Your task to perform on an android device: Open the calendar and show me this week's events? Image 0: 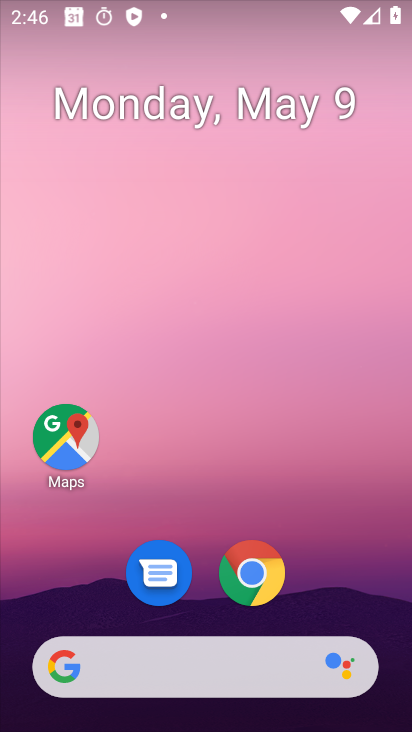
Step 0: drag from (286, 644) to (197, 276)
Your task to perform on an android device: Open the calendar and show me this week's events? Image 1: 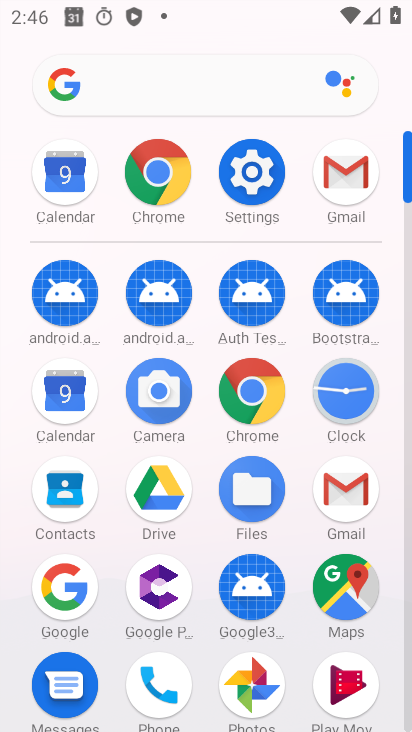
Step 1: click (65, 484)
Your task to perform on an android device: Open the calendar and show me this week's events? Image 2: 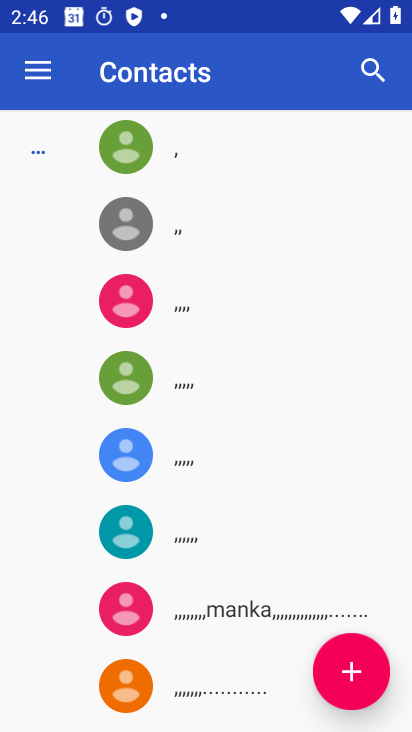
Step 2: press back button
Your task to perform on an android device: Open the calendar and show me this week's events? Image 3: 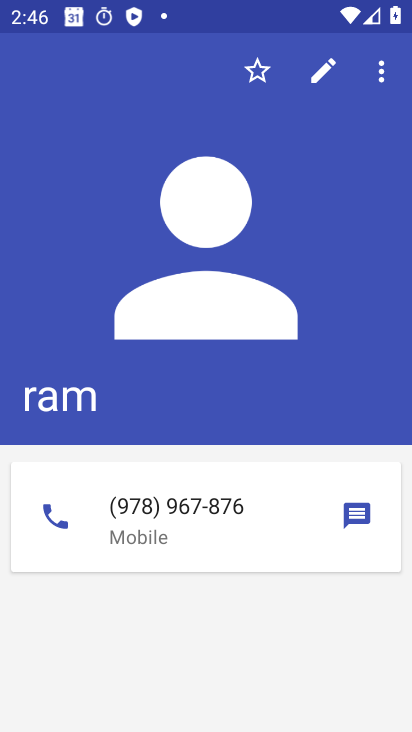
Step 3: press home button
Your task to perform on an android device: Open the calendar and show me this week's events? Image 4: 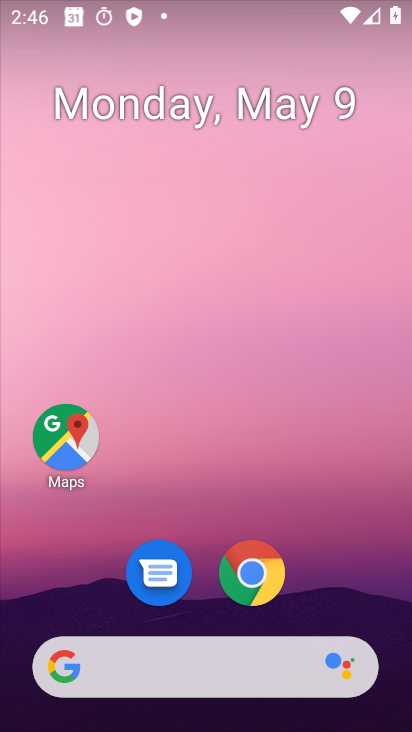
Step 4: drag from (240, 628) to (383, 1)
Your task to perform on an android device: Open the calendar and show me this week's events? Image 5: 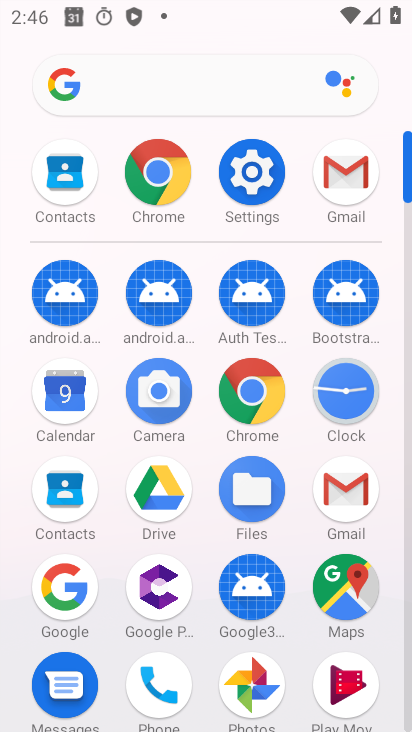
Step 5: click (63, 389)
Your task to perform on an android device: Open the calendar and show me this week's events? Image 6: 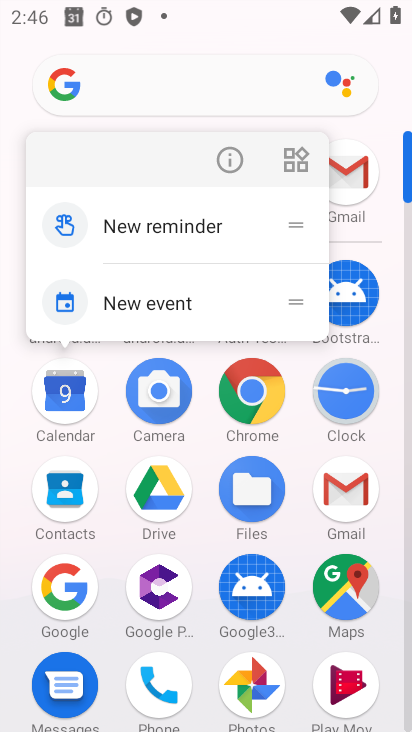
Step 6: click (63, 390)
Your task to perform on an android device: Open the calendar and show me this week's events? Image 7: 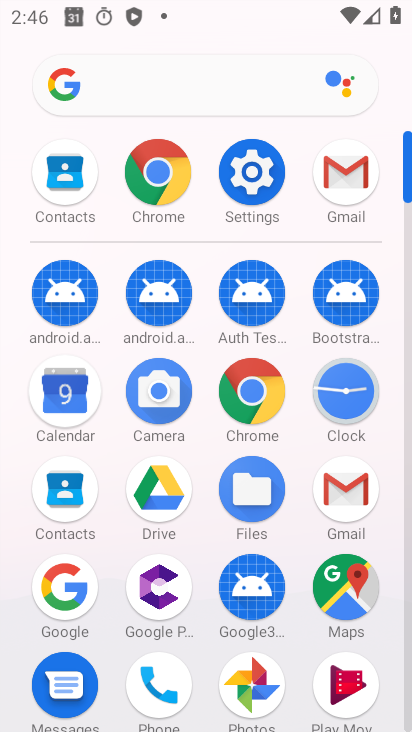
Step 7: click (60, 389)
Your task to perform on an android device: Open the calendar and show me this week's events? Image 8: 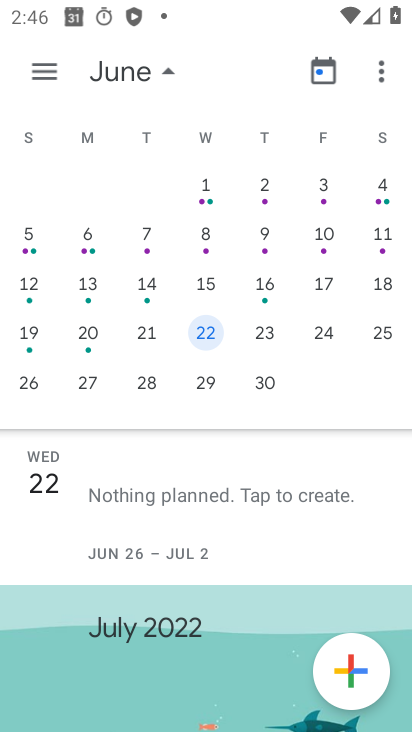
Step 8: drag from (50, 323) to (314, 322)
Your task to perform on an android device: Open the calendar and show me this week's events? Image 9: 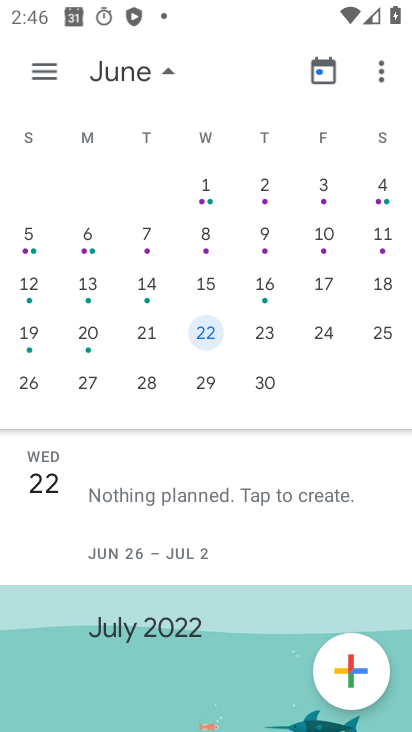
Step 9: drag from (143, 325) to (308, 339)
Your task to perform on an android device: Open the calendar and show me this week's events? Image 10: 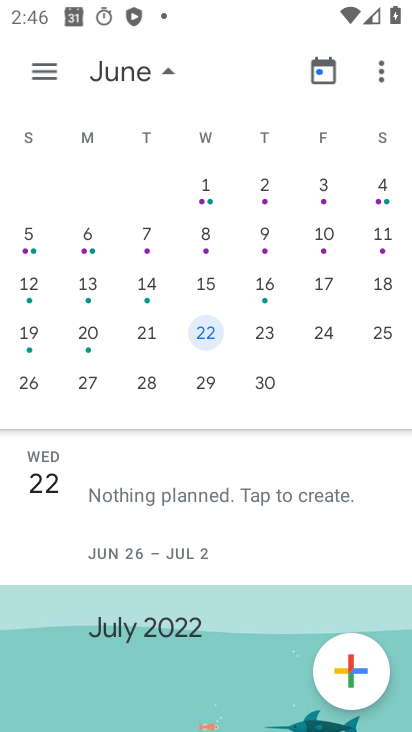
Step 10: drag from (109, 325) to (377, 328)
Your task to perform on an android device: Open the calendar and show me this week's events? Image 11: 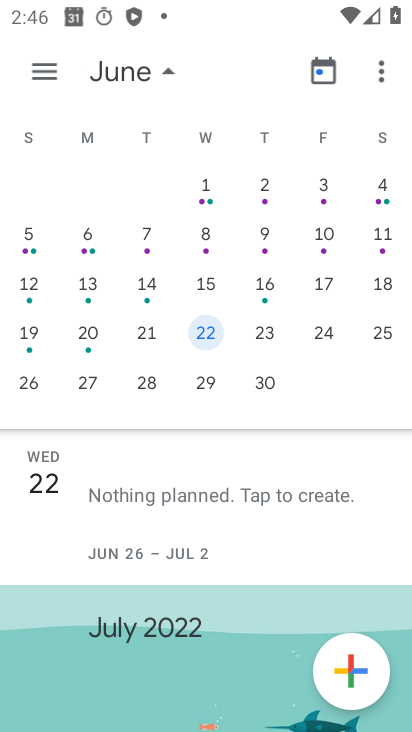
Step 11: click (389, 343)
Your task to perform on an android device: Open the calendar and show me this week's events? Image 12: 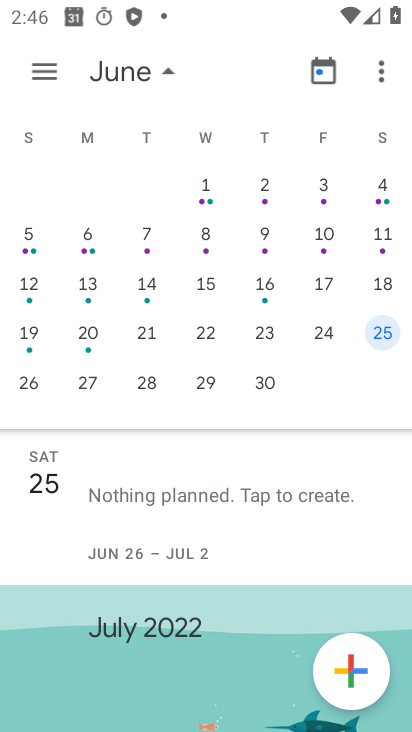
Step 12: drag from (142, 317) to (401, 293)
Your task to perform on an android device: Open the calendar and show me this week's events? Image 13: 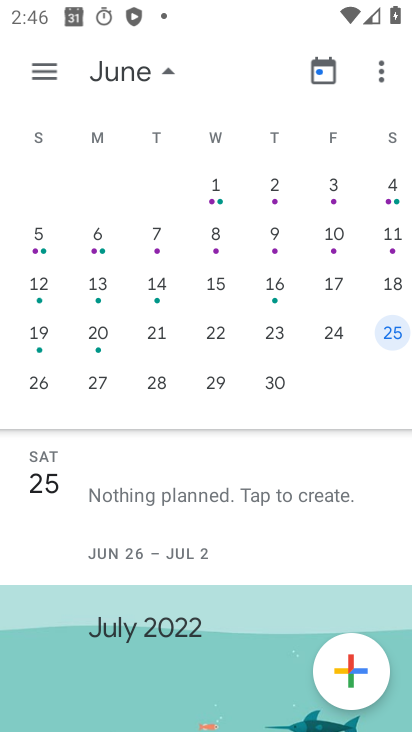
Step 13: drag from (141, 282) to (395, 309)
Your task to perform on an android device: Open the calendar and show me this week's events? Image 14: 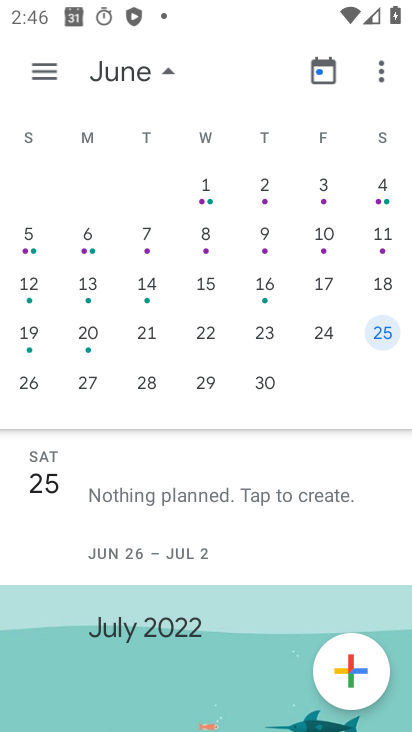
Step 14: drag from (71, 366) to (404, 213)
Your task to perform on an android device: Open the calendar and show me this week's events? Image 15: 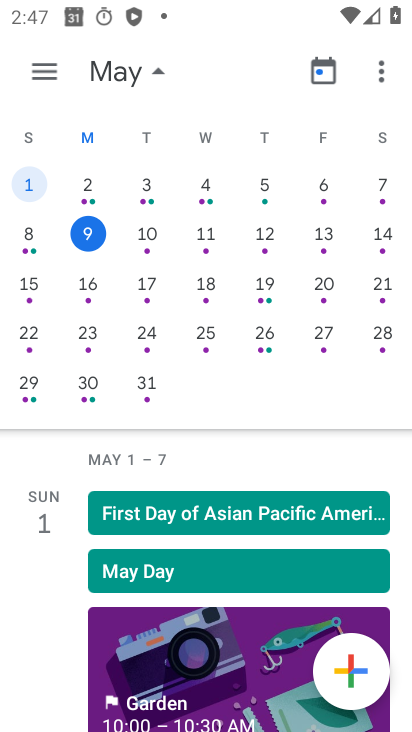
Step 15: drag from (22, 313) to (132, 292)
Your task to perform on an android device: Open the calendar and show me this week's events? Image 16: 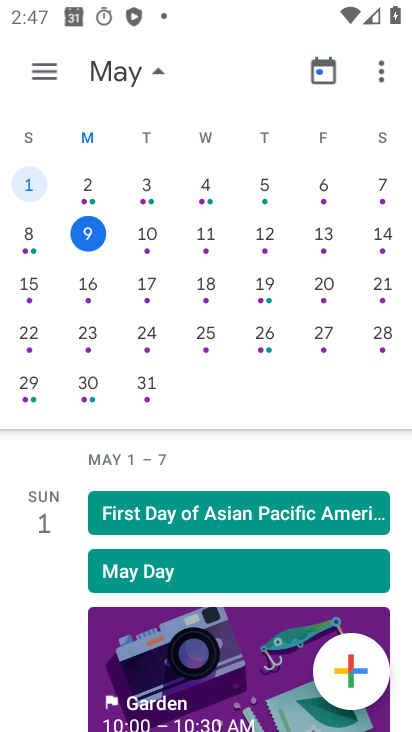
Step 16: drag from (139, 545) to (314, 19)
Your task to perform on an android device: Open the calendar and show me this week's events? Image 17: 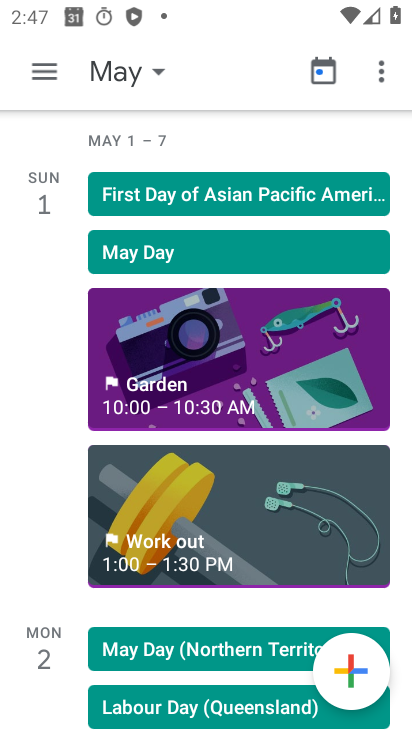
Step 17: drag from (166, 540) to (133, 126)
Your task to perform on an android device: Open the calendar and show me this week's events? Image 18: 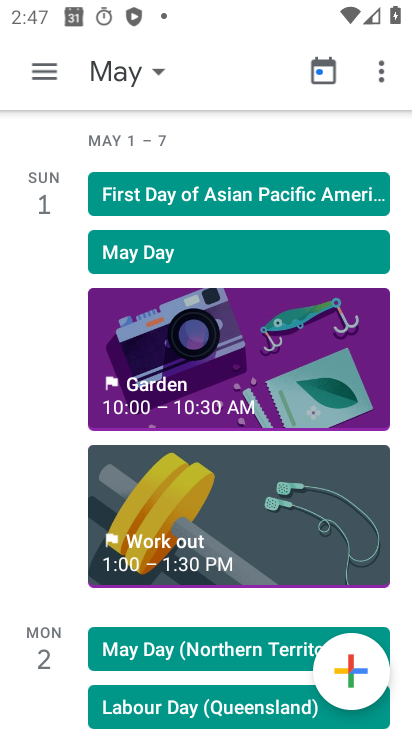
Step 18: drag from (114, 576) to (131, 115)
Your task to perform on an android device: Open the calendar and show me this week's events? Image 19: 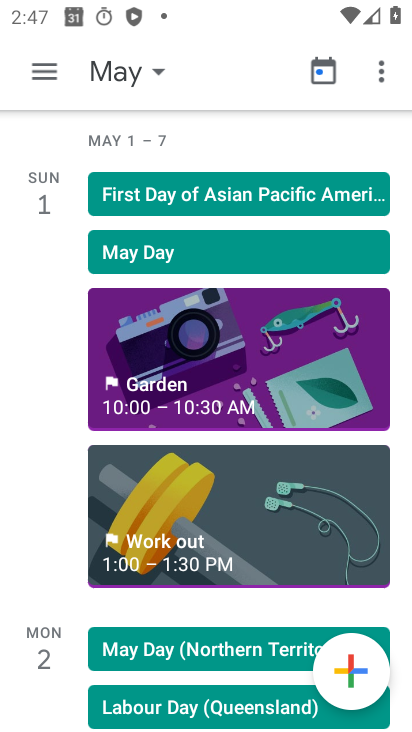
Step 19: drag from (155, 523) to (157, 167)
Your task to perform on an android device: Open the calendar and show me this week's events? Image 20: 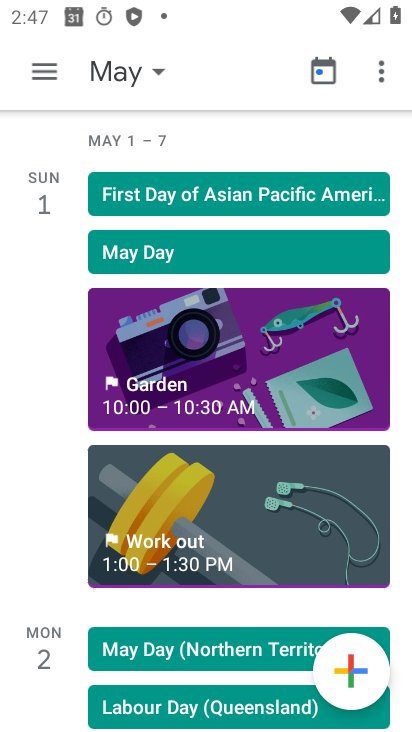
Step 20: drag from (102, 675) to (101, 282)
Your task to perform on an android device: Open the calendar and show me this week's events? Image 21: 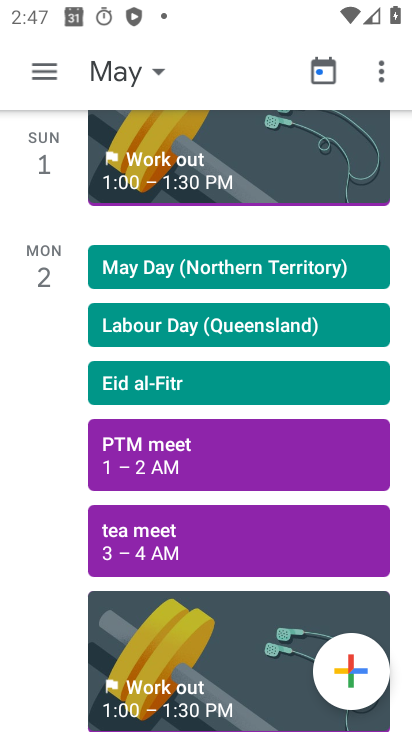
Step 21: drag from (68, 578) to (73, 279)
Your task to perform on an android device: Open the calendar and show me this week's events? Image 22: 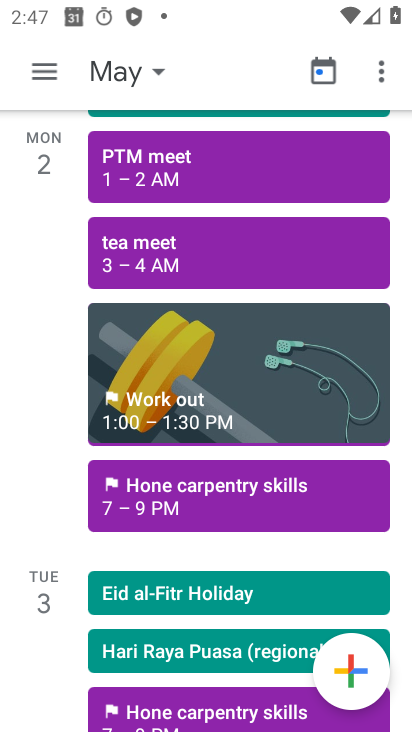
Step 22: drag from (174, 630) to (151, 244)
Your task to perform on an android device: Open the calendar and show me this week's events? Image 23: 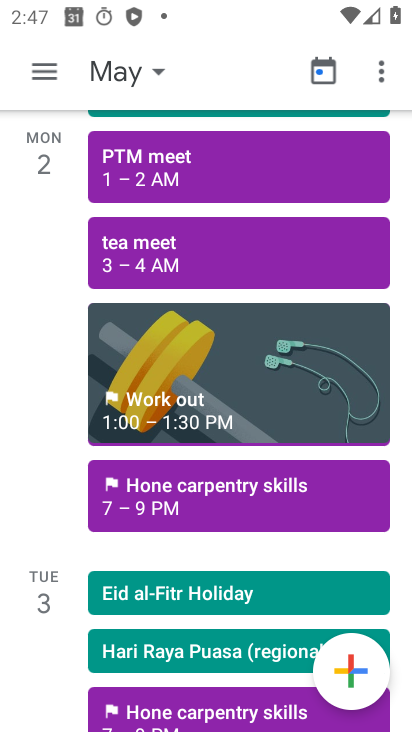
Step 23: drag from (197, 604) to (174, 245)
Your task to perform on an android device: Open the calendar and show me this week's events? Image 24: 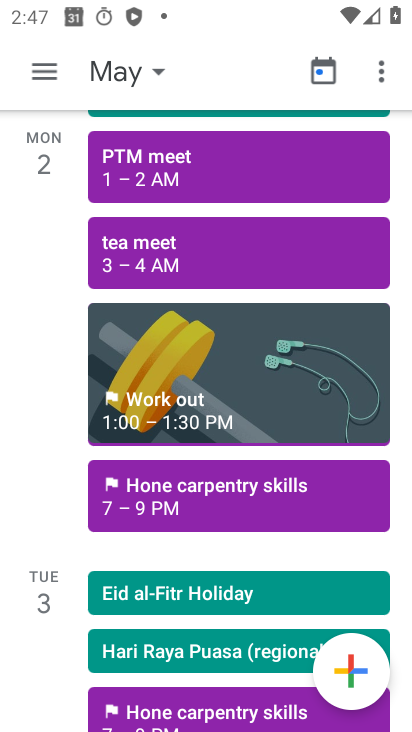
Step 24: drag from (143, 567) to (151, 242)
Your task to perform on an android device: Open the calendar and show me this week's events? Image 25: 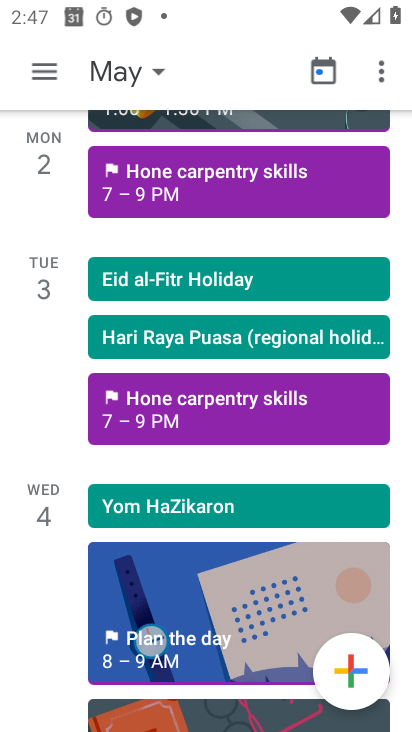
Step 25: drag from (202, 590) to (216, 238)
Your task to perform on an android device: Open the calendar and show me this week's events? Image 26: 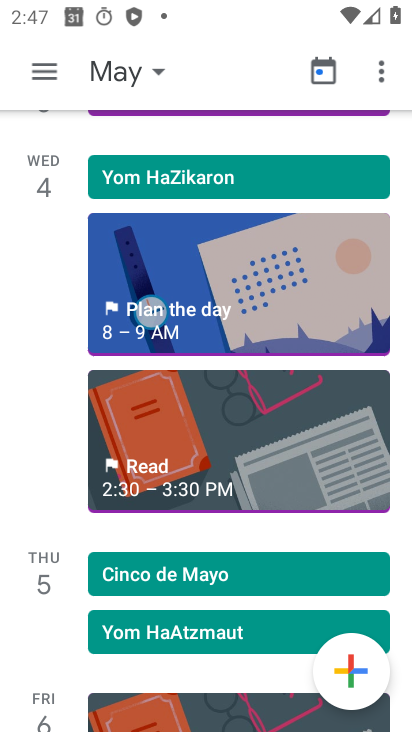
Step 26: drag from (204, 542) to (202, 226)
Your task to perform on an android device: Open the calendar and show me this week's events? Image 27: 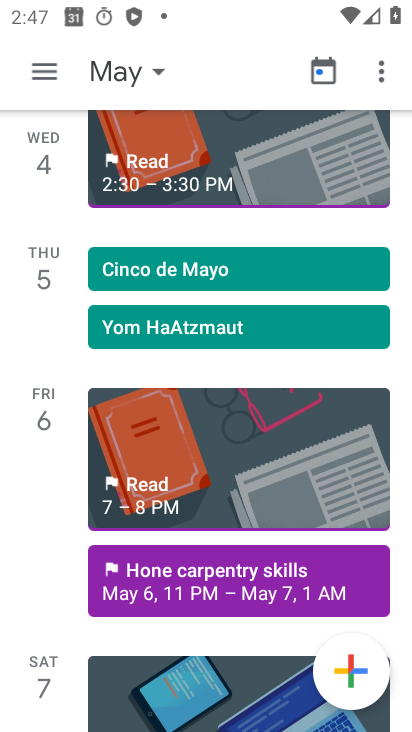
Step 27: drag from (230, 532) to (232, 220)
Your task to perform on an android device: Open the calendar and show me this week's events? Image 28: 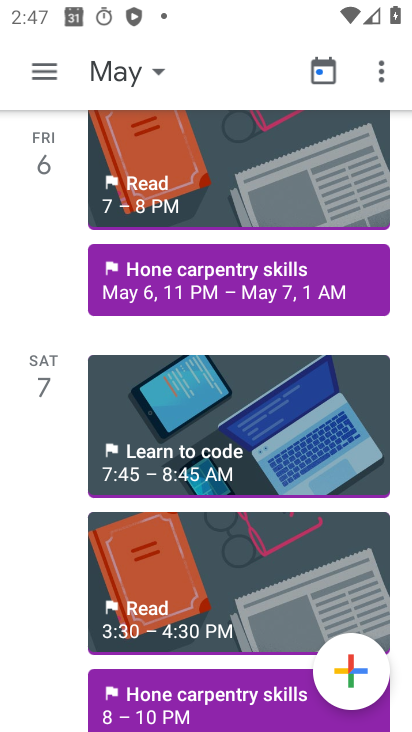
Step 28: drag from (295, 530) to (325, 207)
Your task to perform on an android device: Open the calendar and show me this week's events? Image 29: 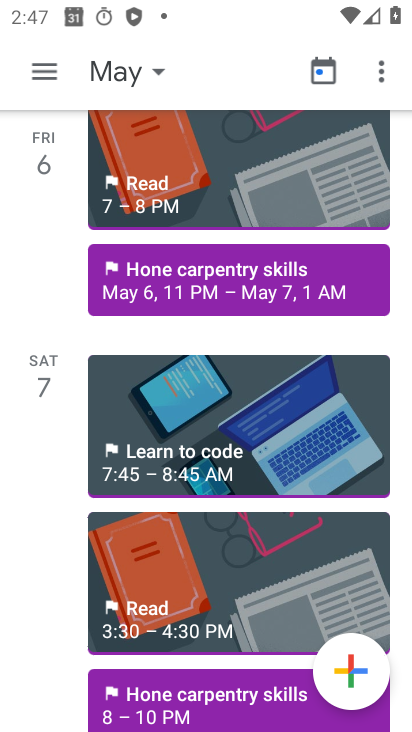
Step 29: drag from (338, 448) to (305, 73)
Your task to perform on an android device: Open the calendar and show me this week's events? Image 30: 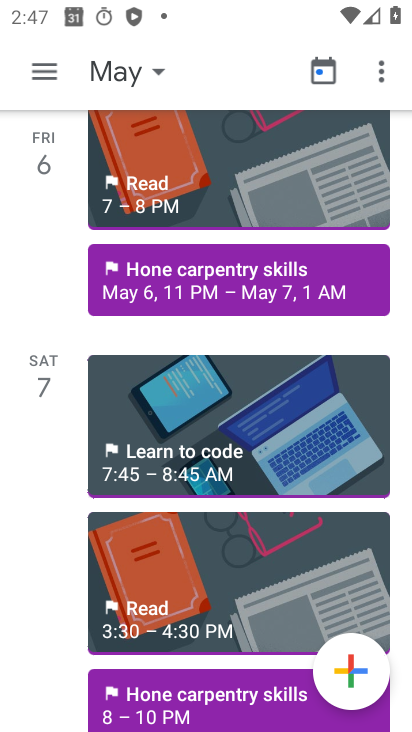
Step 30: drag from (174, 484) to (150, 141)
Your task to perform on an android device: Open the calendar and show me this week's events? Image 31: 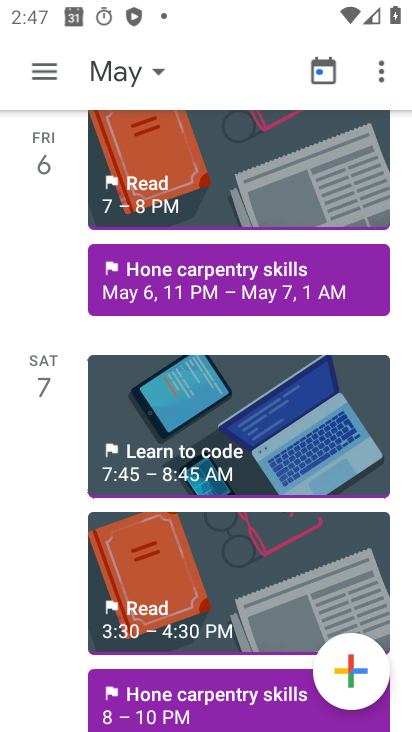
Step 31: drag from (203, 538) to (232, 140)
Your task to perform on an android device: Open the calendar and show me this week's events? Image 32: 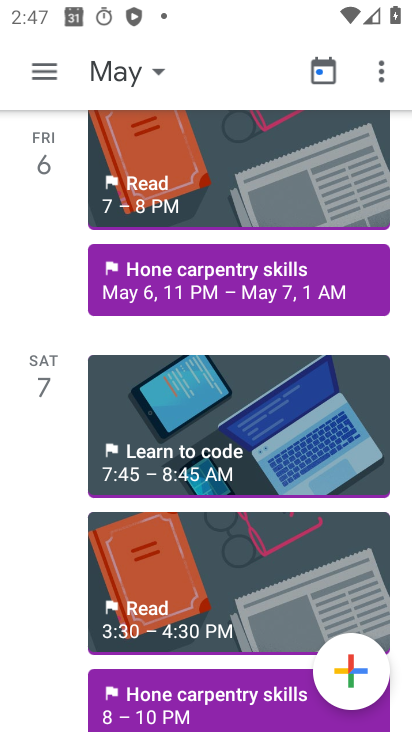
Step 32: drag from (217, 496) to (212, 145)
Your task to perform on an android device: Open the calendar and show me this week's events? Image 33: 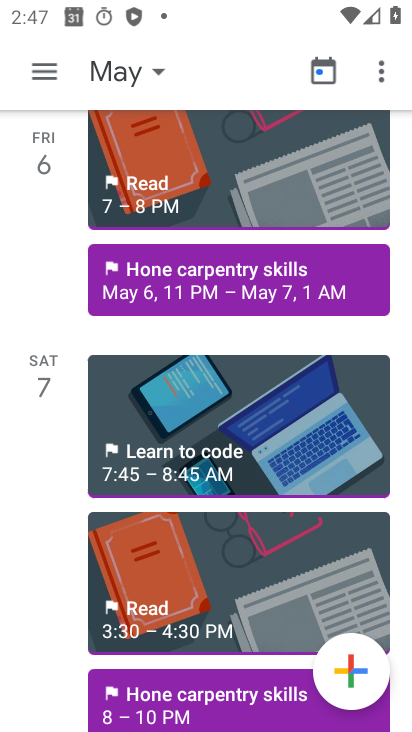
Step 33: drag from (196, 504) to (213, 370)
Your task to perform on an android device: Open the calendar and show me this week's events? Image 34: 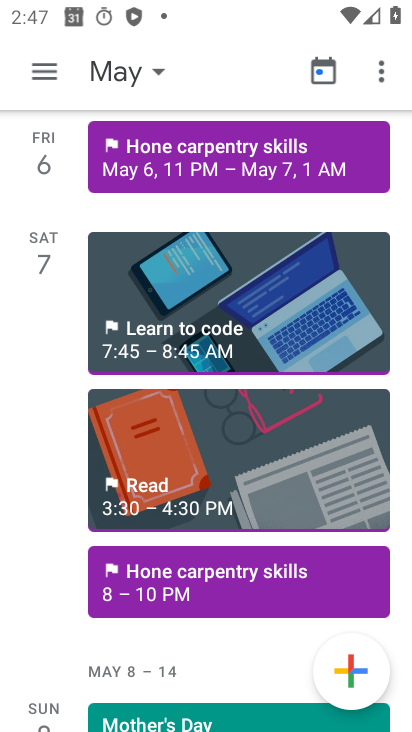
Step 34: drag from (186, 555) to (191, 164)
Your task to perform on an android device: Open the calendar and show me this week's events? Image 35: 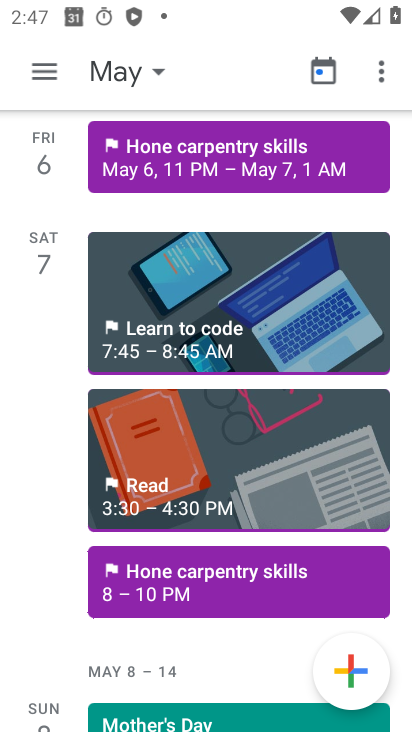
Step 35: drag from (183, 561) to (151, 110)
Your task to perform on an android device: Open the calendar and show me this week's events? Image 36: 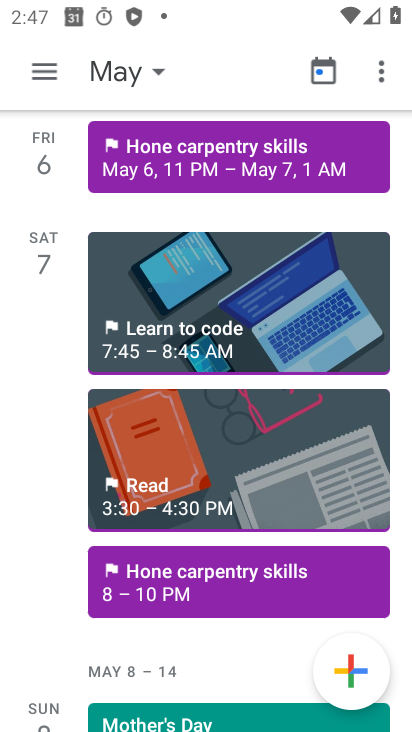
Step 36: drag from (154, 655) to (159, 242)
Your task to perform on an android device: Open the calendar and show me this week's events? Image 37: 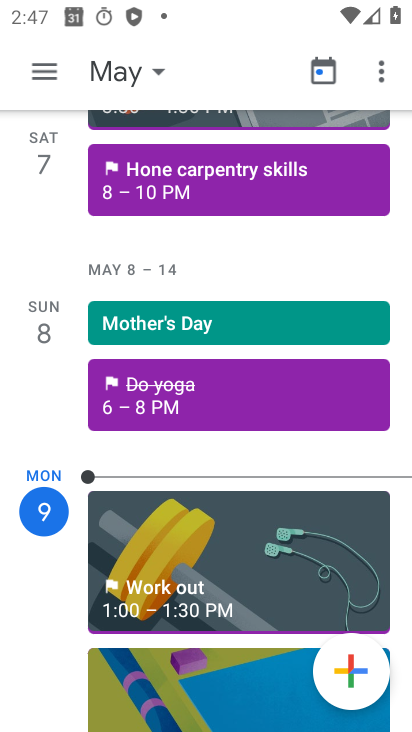
Step 37: drag from (182, 616) to (195, 112)
Your task to perform on an android device: Open the calendar and show me this week's events? Image 38: 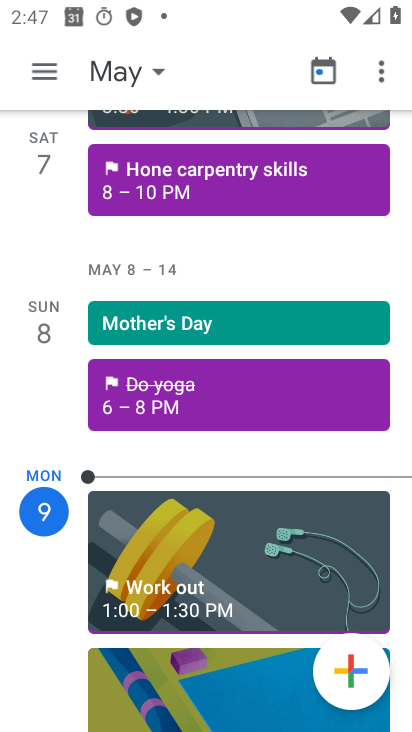
Step 38: click (138, 554)
Your task to perform on an android device: Open the calendar and show me this week's events? Image 39: 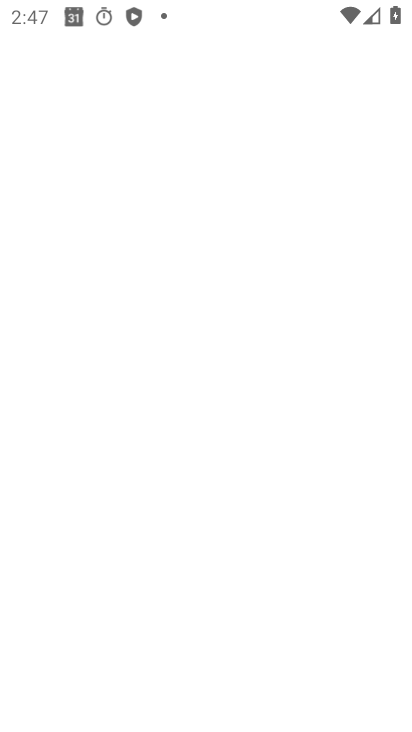
Step 39: click (175, 630)
Your task to perform on an android device: Open the calendar and show me this week's events? Image 40: 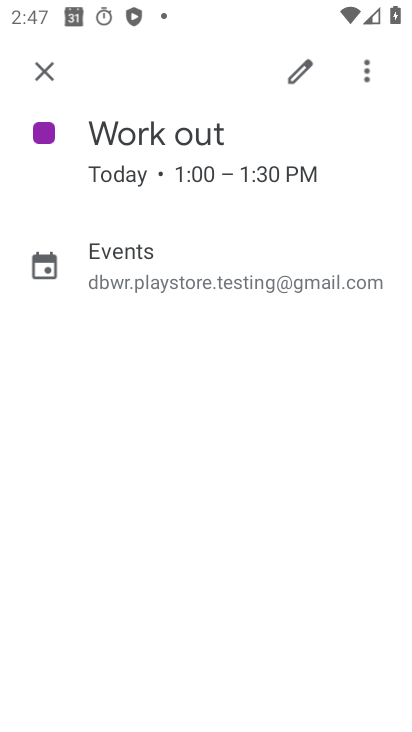
Step 40: task complete